Your task to perform on an android device: Open Chrome and go to settings Image 0: 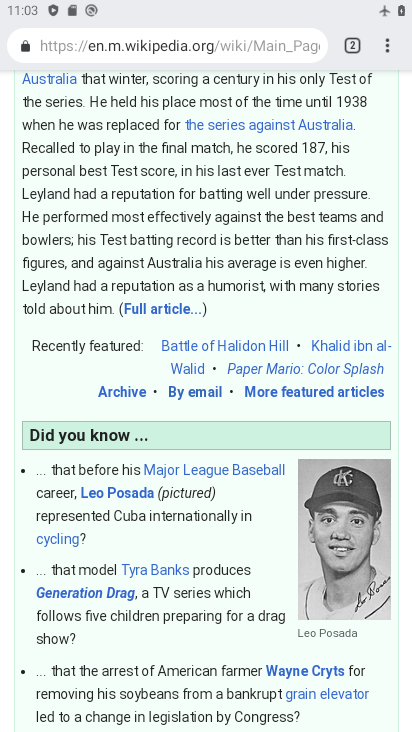
Step 0: press home button
Your task to perform on an android device: Open Chrome and go to settings Image 1: 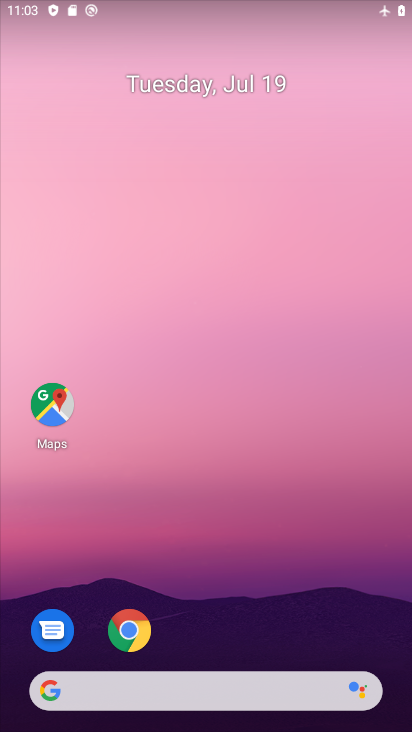
Step 1: drag from (181, 677) to (179, 232)
Your task to perform on an android device: Open Chrome and go to settings Image 2: 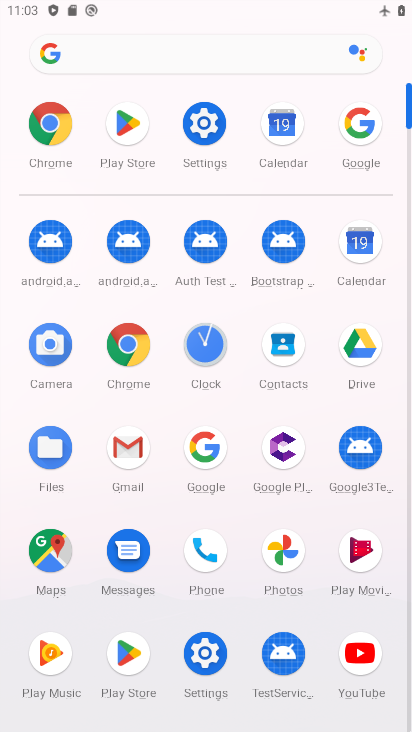
Step 2: click (51, 118)
Your task to perform on an android device: Open Chrome and go to settings Image 3: 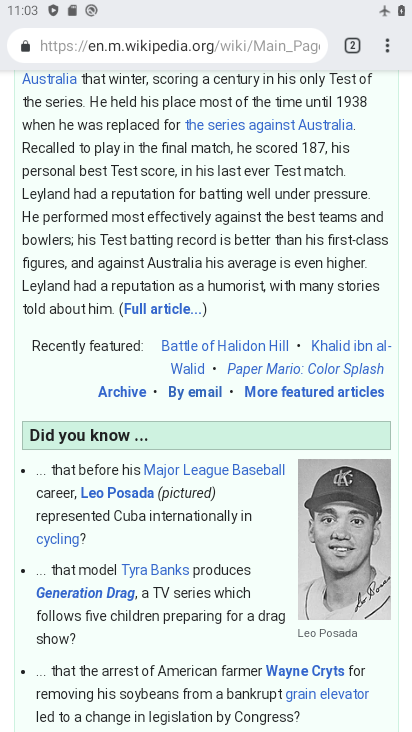
Step 3: click (384, 44)
Your task to perform on an android device: Open Chrome and go to settings Image 4: 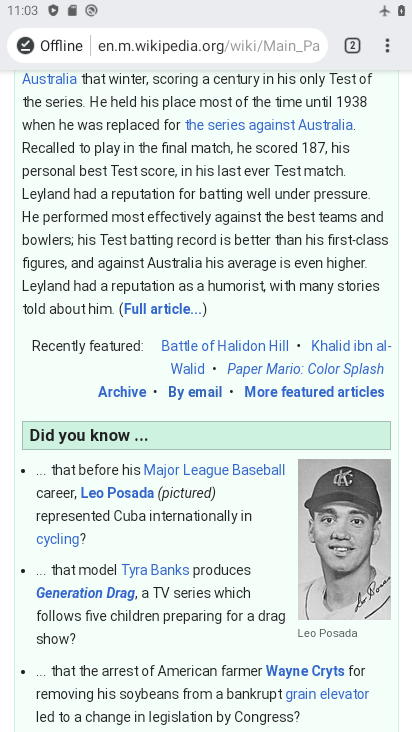
Step 4: click (381, 44)
Your task to perform on an android device: Open Chrome and go to settings Image 5: 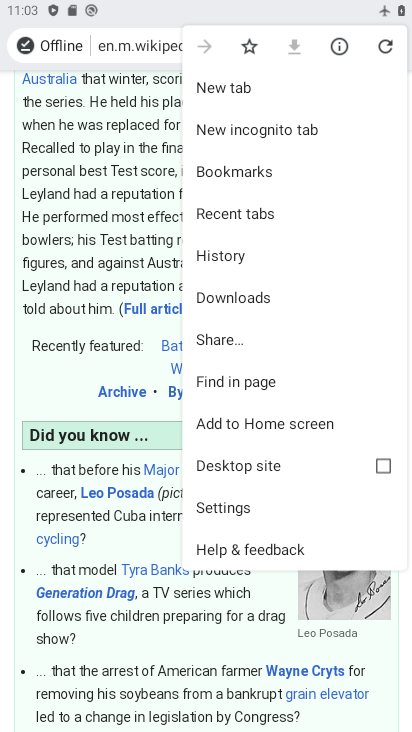
Step 5: click (222, 496)
Your task to perform on an android device: Open Chrome and go to settings Image 6: 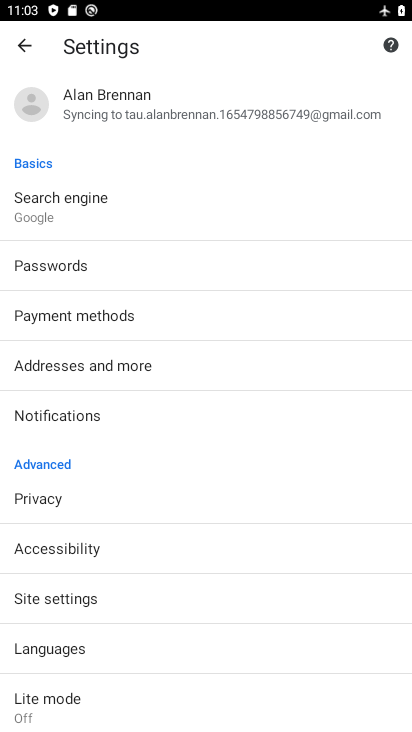
Step 6: task complete